Your task to perform on an android device: Open CNN.com Image 0: 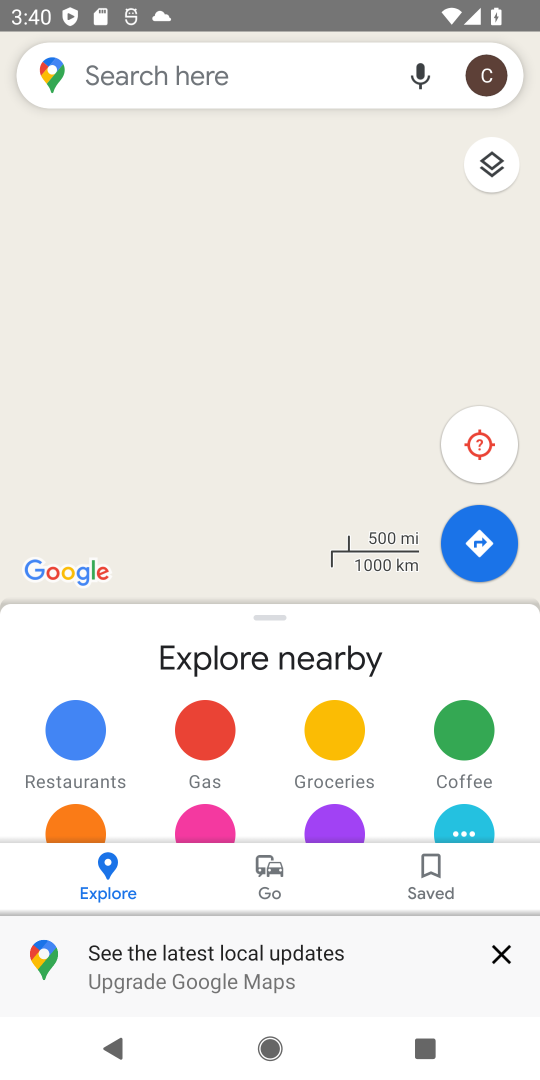
Step 0: press home button
Your task to perform on an android device: Open CNN.com Image 1: 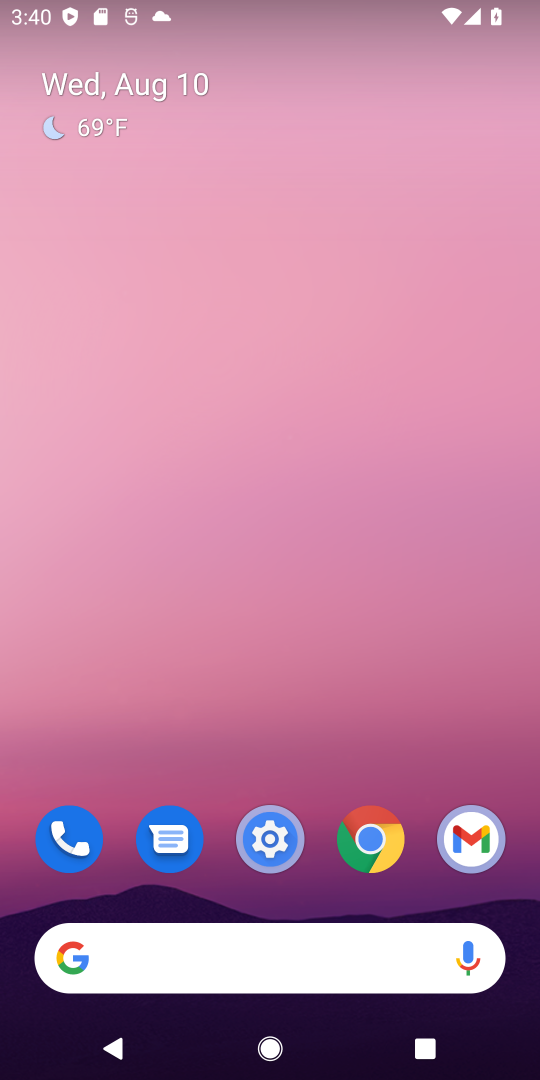
Step 1: click (347, 965)
Your task to perform on an android device: Open CNN.com Image 2: 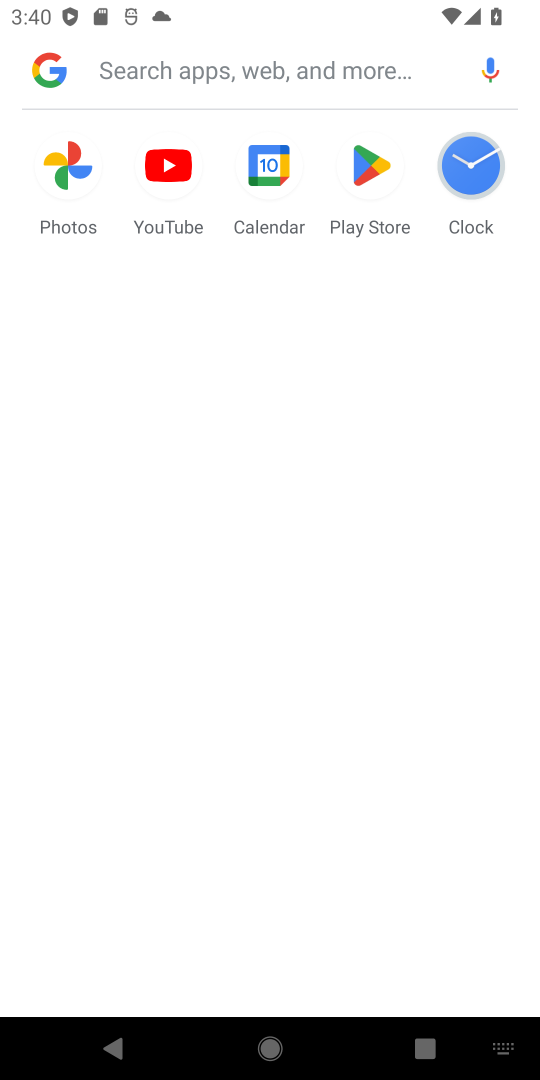
Step 2: type "cnn.com"
Your task to perform on an android device: Open CNN.com Image 3: 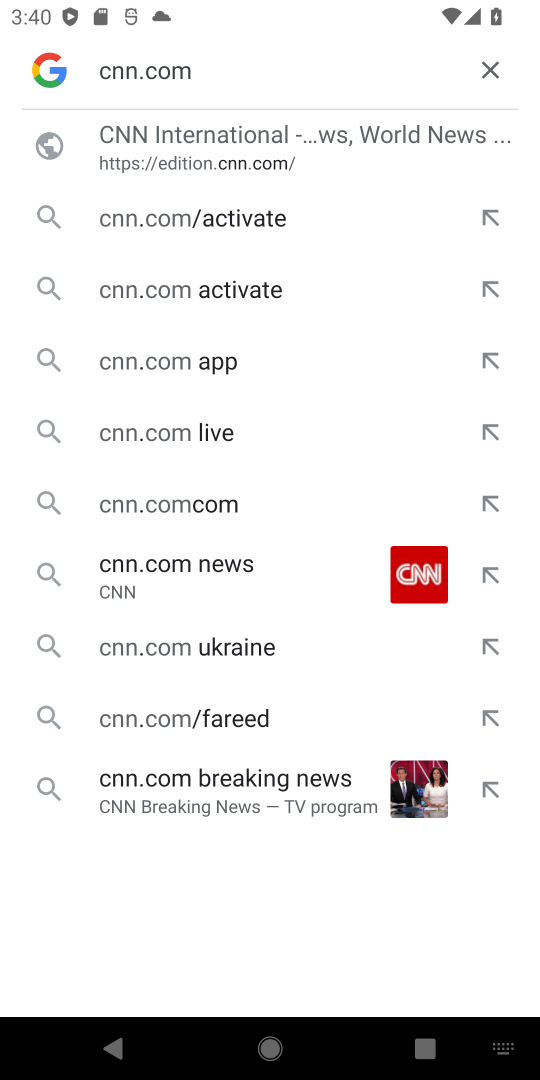
Step 3: click (326, 155)
Your task to perform on an android device: Open CNN.com Image 4: 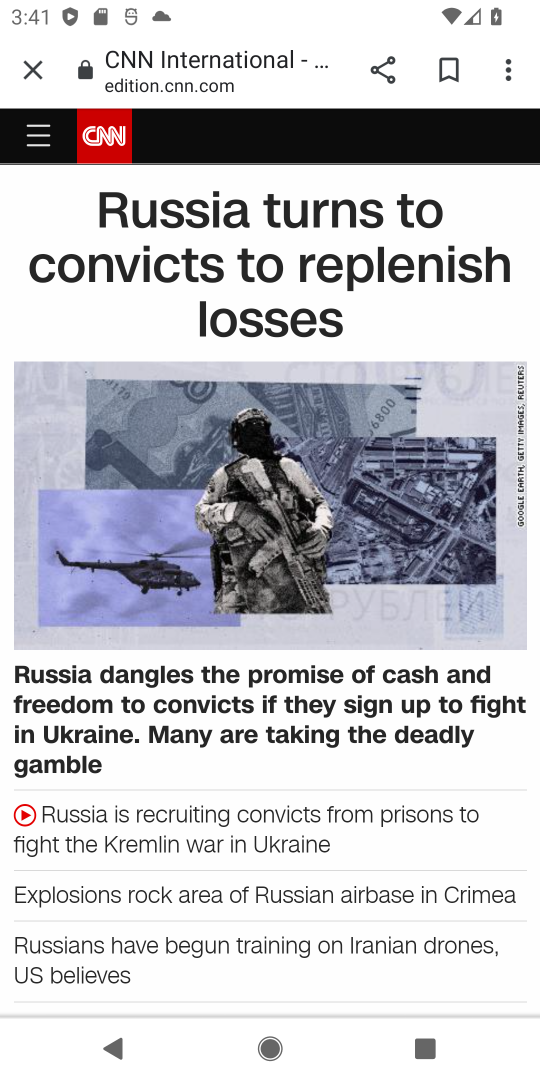
Step 4: task complete